Your task to perform on an android device: Open calendar and show me the fourth week of next month Image 0: 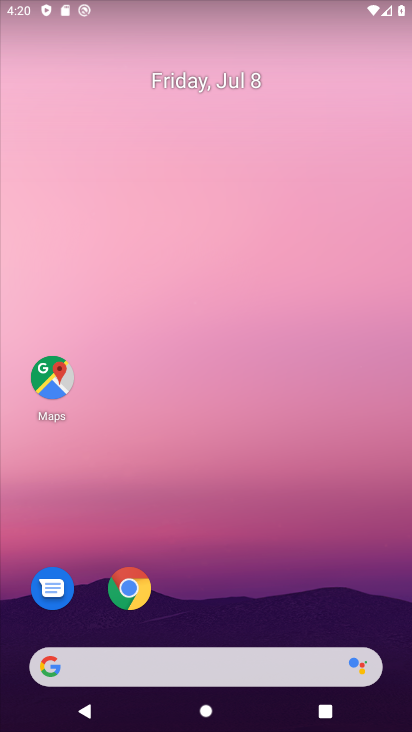
Step 0: drag from (245, 712) to (182, 166)
Your task to perform on an android device: Open calendar and show me the fourth week of next month Image 1: 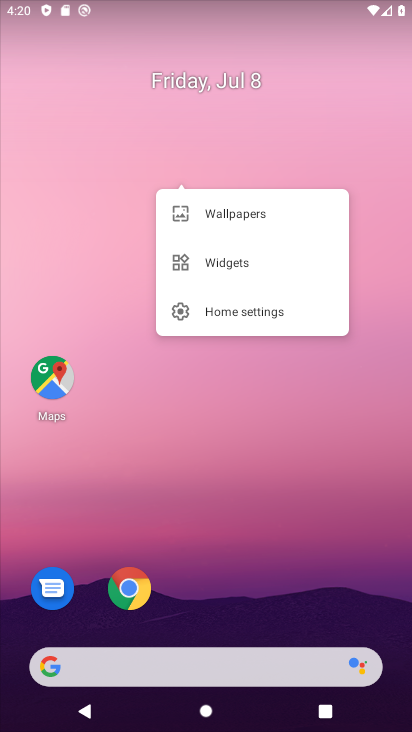
Step 1: press back button
Your task to perform on an android device: Open calendar and show me the fourth week of next month Image 2: 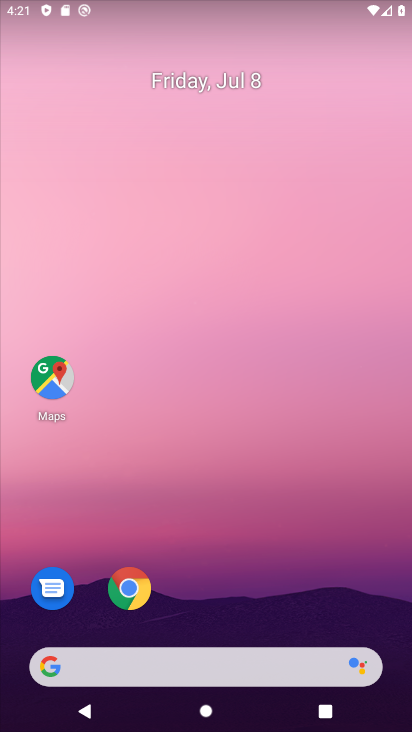
Step 2: drag from (255, 608) to (152, 147)
Your task to perform on an android device: Open calendar and show me the fourth week of next month Image 3: 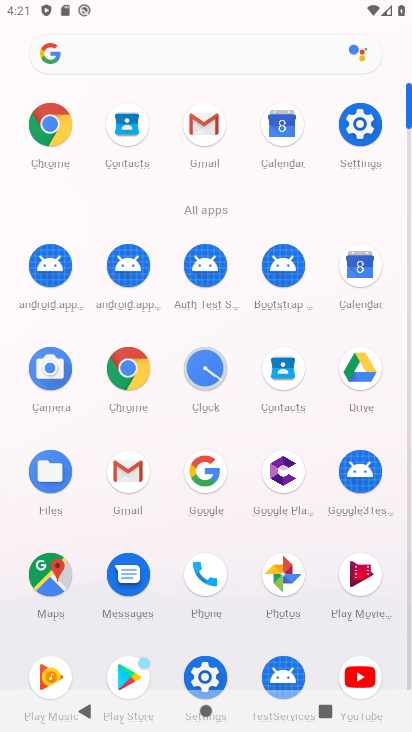
Step 3: click (362, 274)
Your task to perform on an android device: Open calendar and show me the fourth week of next month Image 4: 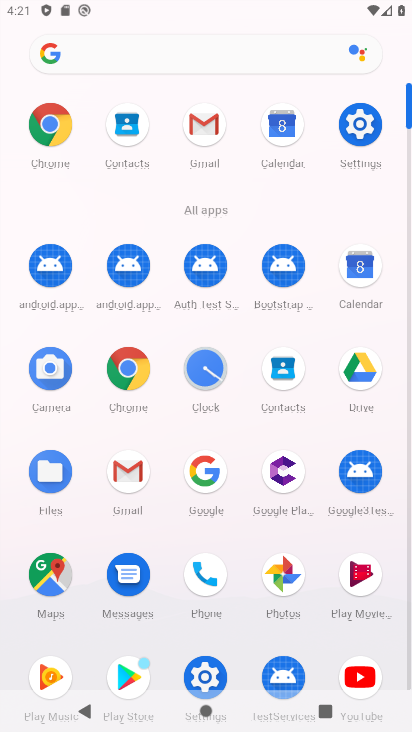
Step 4: click (362, 275)
Your task to perform on an android device: Open calendar and show me the fourth week of next month Image 5: 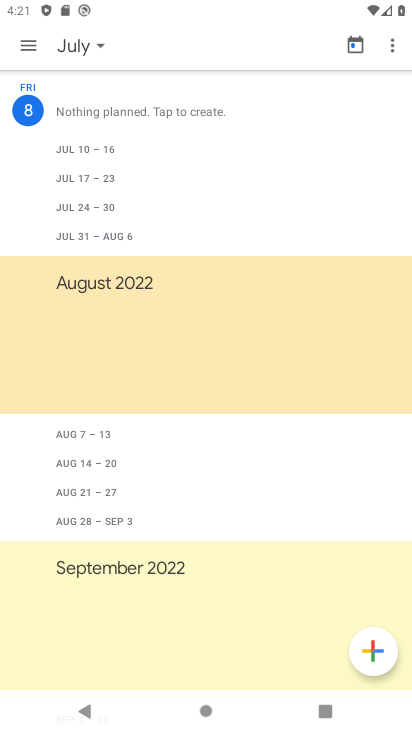
Step 5: click (92, 50)
Your task to perform on an android device: Open calendar and show me the fourth week of next month Image 6: 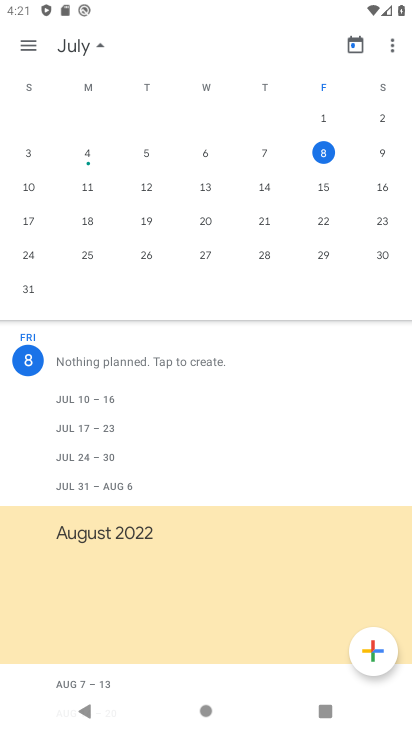
Step 6: click (84, 219)
Your task to perform on an android device: Open calendar and show me the fourth week of next month Image 7: 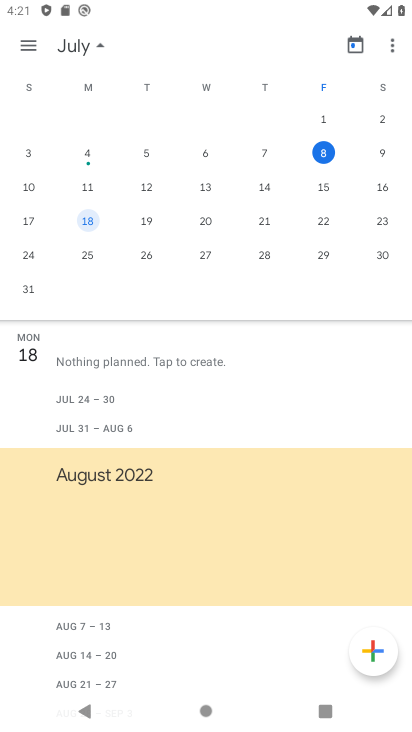
Step 7: click (84, 219)
Your task to perform on an android device: Open calendar and show me the fourth week of next month Image 8: 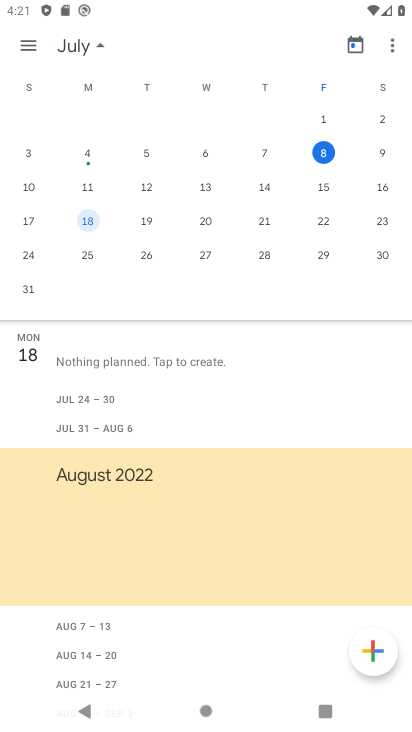
Step 8: click (84, 219)
Your task to perform on an android device: Open calendar and show me the fourth week of next month Image 9: 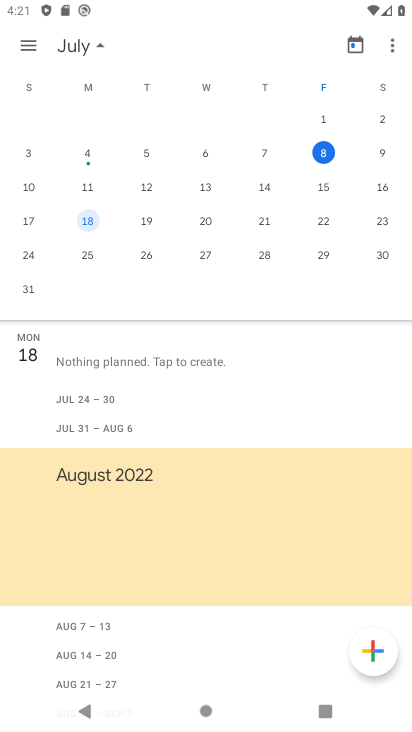
Step 9: drag from (156, 241) to (0, 227)
Your task to perform on an android device: Open calendar and show me the fourth week of next month Image 10: 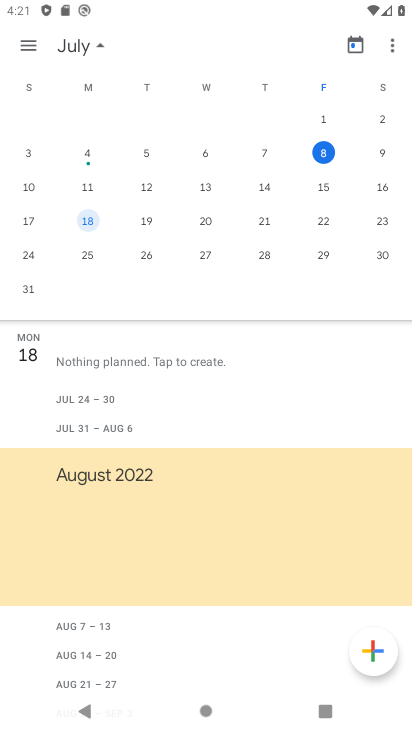
Step 10: drag from (267, 162) to (82, 220)
Your task to perform on an android device: Open calendar and show me the fourth week of next month Image 11: 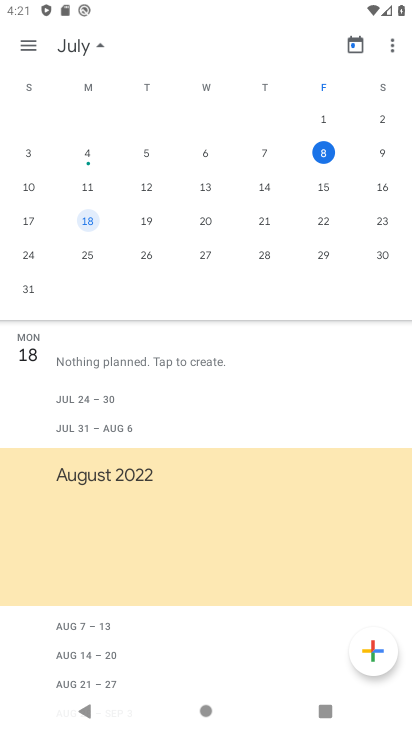
Step 11: drag from (317, 173) to (29, 239)
Your task to perform on an android device: Open calendar and show me the fourth week of next month Image 12: 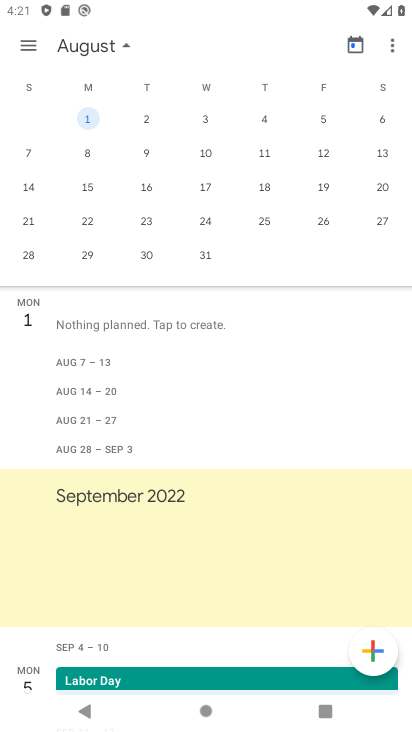
Step 12: drag from (315, 185) to (40, 232)
Your task to perform on an android device: Open calendar and show me the fourth week of next month Image 13: 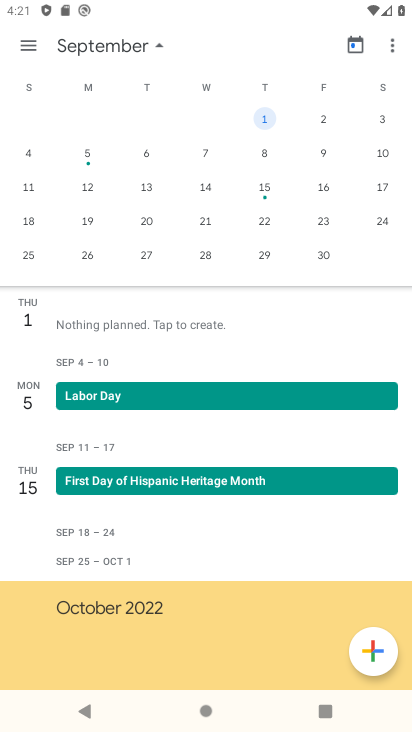
Step 13: click (222, 162)
Your task to perform on an android device: Open calendar and show me the fourth week of next month Image 14: 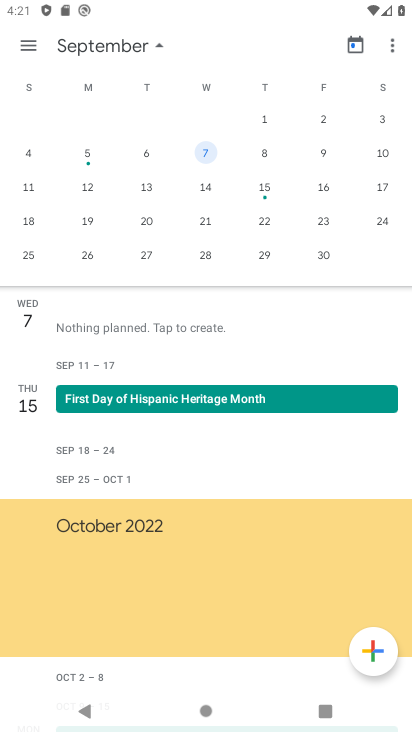
Step 14: click (47, 204)
Your task to perform on an android device: Open calendar and show me the fourth week of next month Image 15: 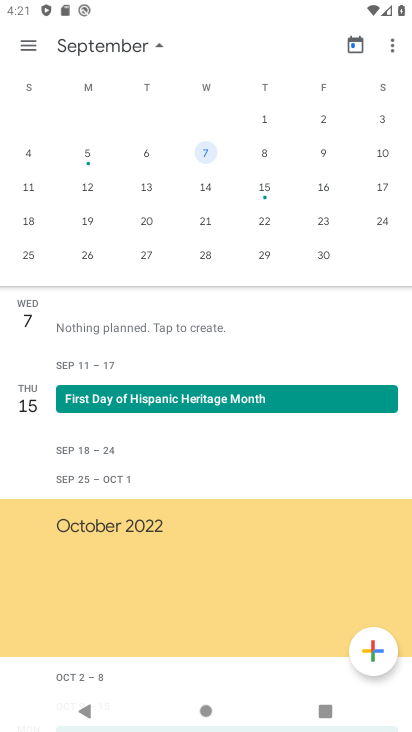
Step 15: click (14, 258)
Your task to perform on an android device: Open calendar and show me the fourth week of next month Image 16: 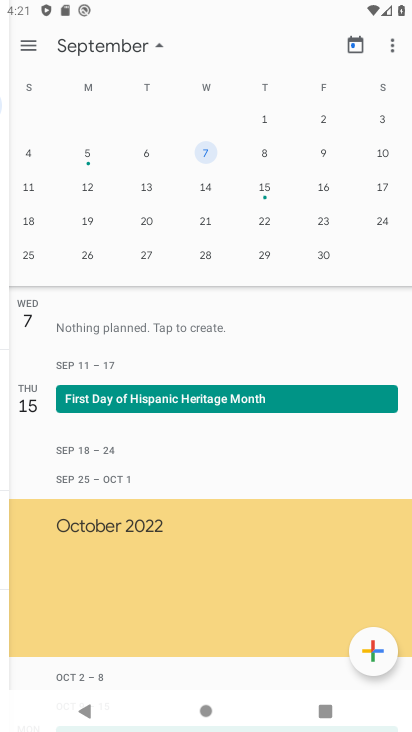
Step 16: drag from (173, 216) to (1, 265)
Your task to perform on an android device: Open calendar and show me the fourth week of next month Image 17: 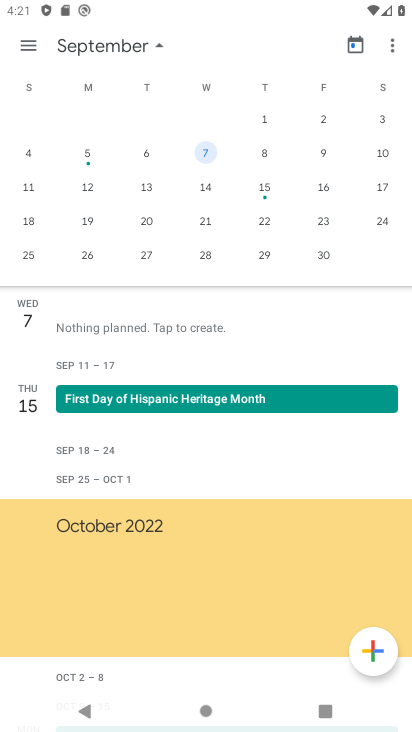
Step 17: click (16, 231)
Your task to perform on an android device: Open calendar and show me the fourth week of next month Image 18: 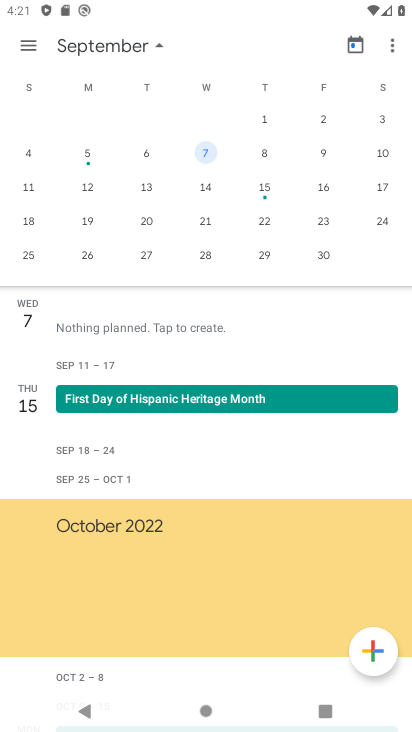
Step 18: drag from (170, 198) to (409, 260)
Your task to perform on an android device: Open calendar and show me the fourth week of next month Image 19: 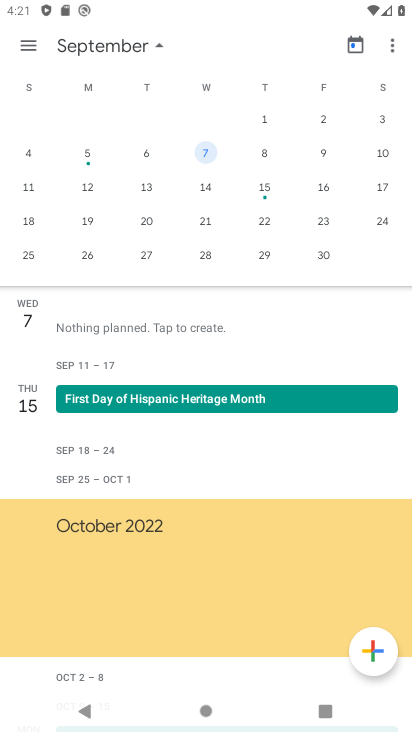
Step 19: drag from (326, 168) to (387, 244)
Your task to perform on an android device: Open calendar and show me the fourth week of next month Image 20: 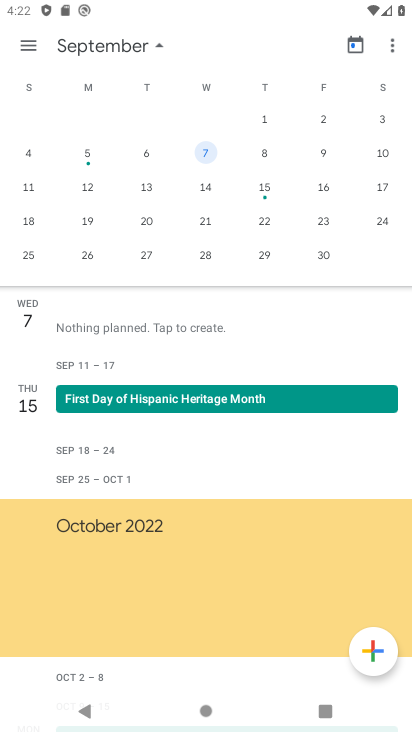
Step 20: drag from (96, 133) to (379, 252)
Your task to perform on an android device: Open calendar and show me the fourth week of next month Image 21: 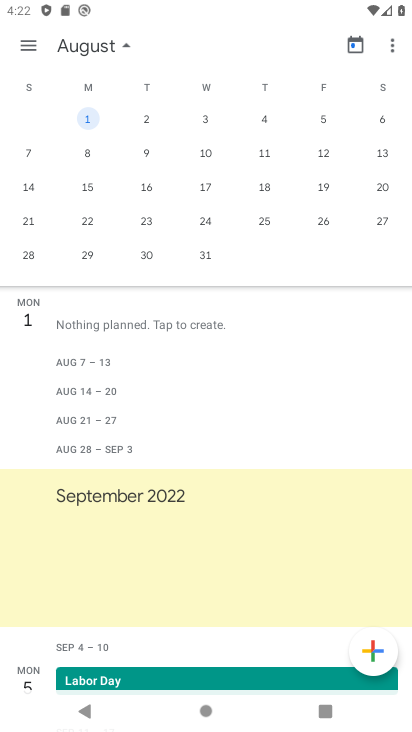
Step 21: click (86, 224)
Your task to perform on an android device: Open calendar and show me the fourth week of next month Image 22: 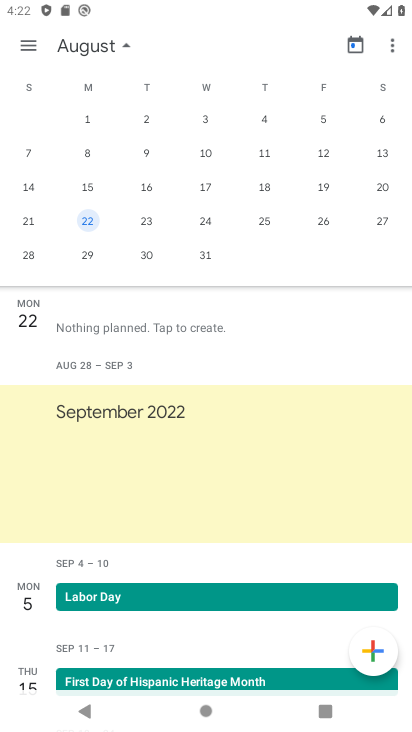
Step 22: task complete